Your task to perform on an android device: Open calendar and show me the first week of next month Image 0: 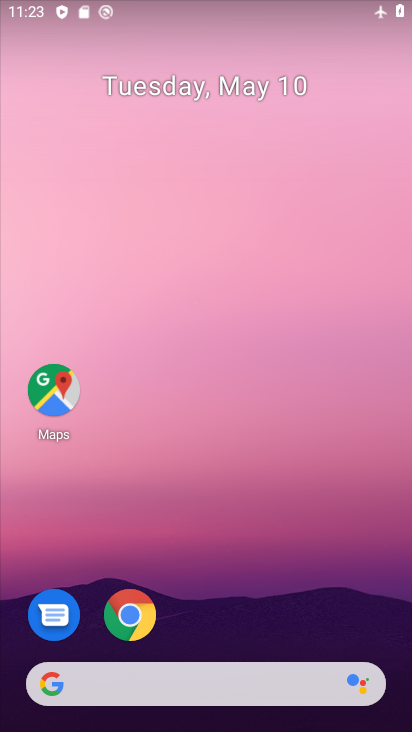
Step 0: drag from (245, 557) to (224, 25)
Your task to perform on an android device: Open calendar and show me the first week of next month Image 1: 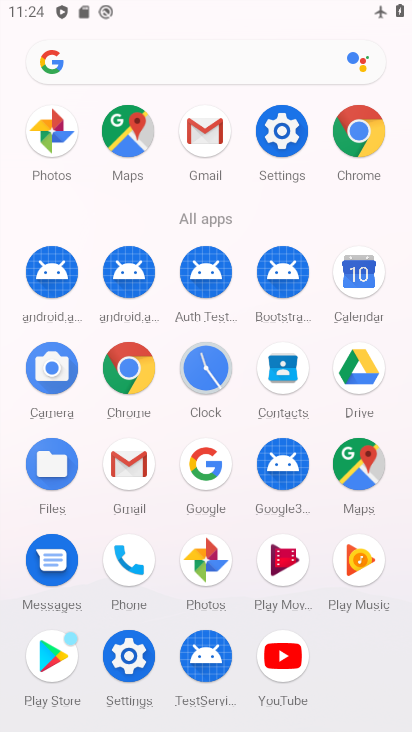
Step 1: click (349, 265)
Your task to perform on an android device: Open calendar and show me the first week of next month Image 2: 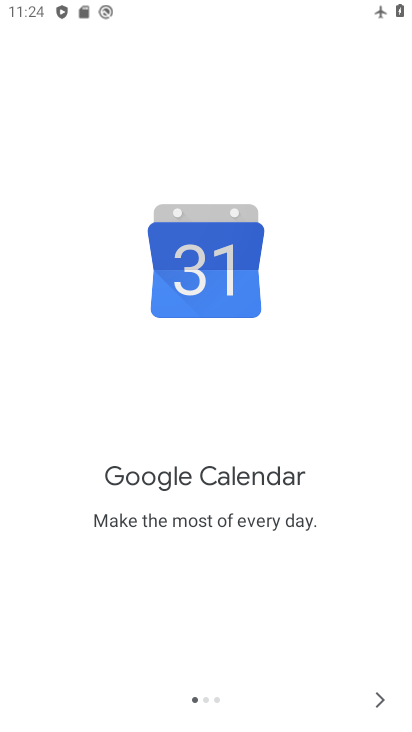
Step 2: click (373, 688)
Your task to perform on an android device: Open calendar and show me the first week of next month Image 3: 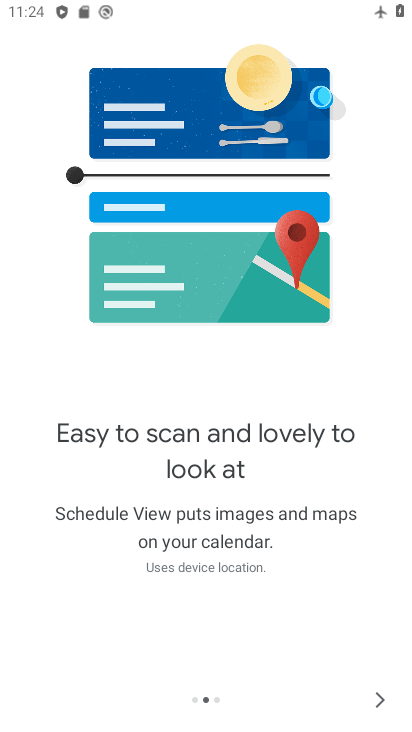
Step 3: click (377, 687)
Your task to perform on an android device: Open calendar and show me the first week of next month Image 4: 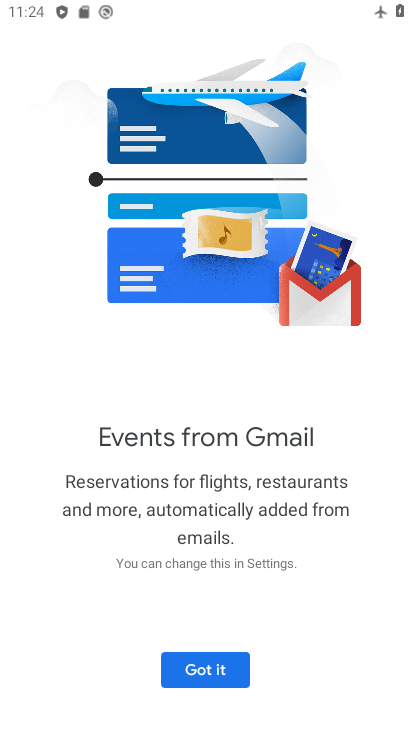
Step 4: click (214, 669)
Your task to perform on an android device: Open calendar and show me the first week of next month Image 5: 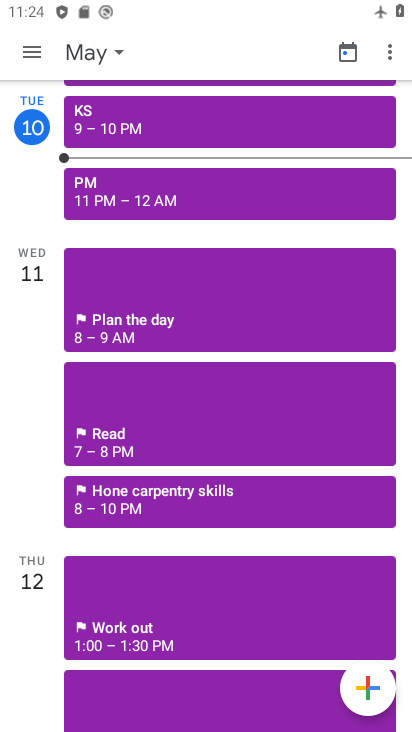
Step 5: click (87, 56)
Your task to perform on an android device: Open calendar and show me the first week of next month Image 6: 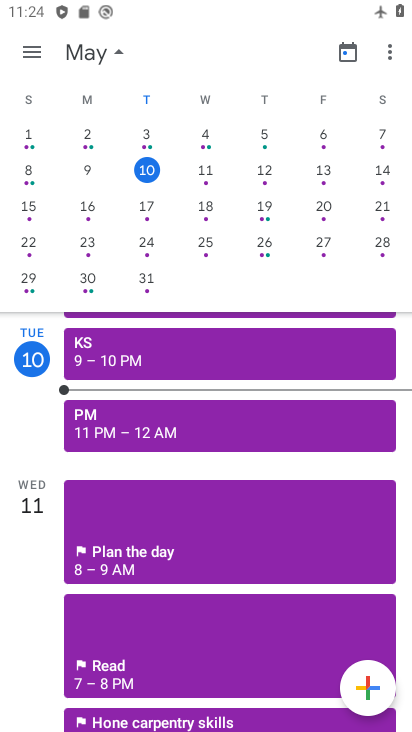
Step 6: drag from (392, 208) to (5, 141)
Your task to perform on an android device: Open calendar and show me the first week of next month Image 7: 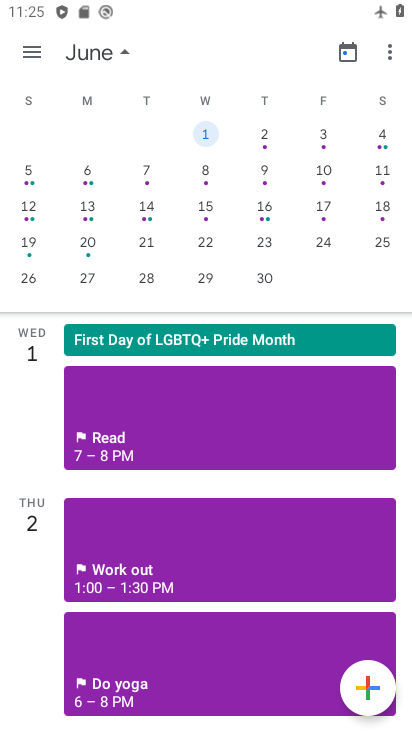
Step 7: click (40, 57)
Your task to perform on an android device: Open calendar and show me the first week of next month Image 8: 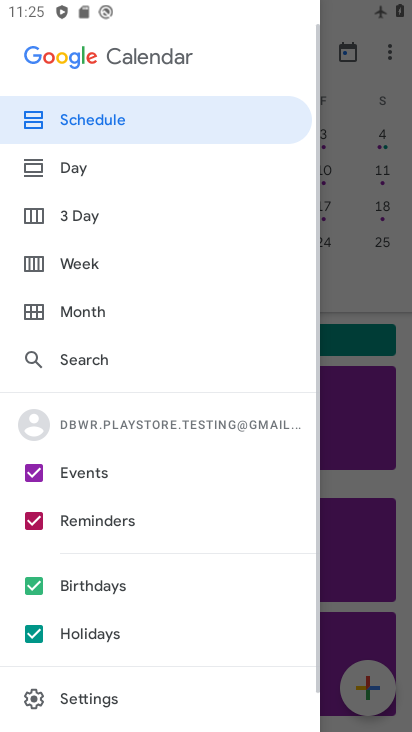
Step 8: click (71, 259)
Your task to perform on an android device: Open calendar and show me the first week of next month Image 9: 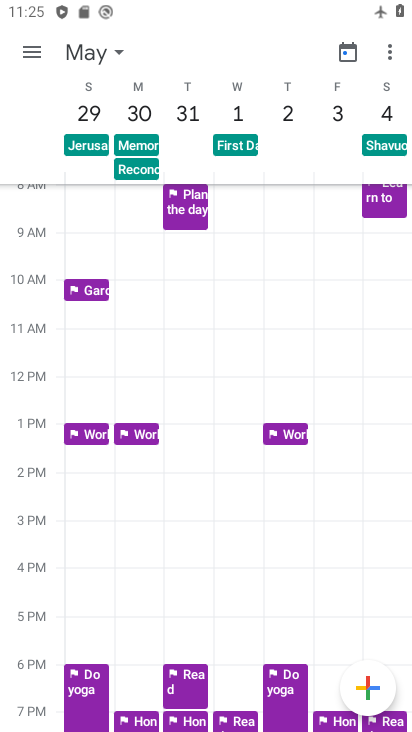
Step 9: task complete